Your task to perform on an android device: What is the recent news? Image 0: 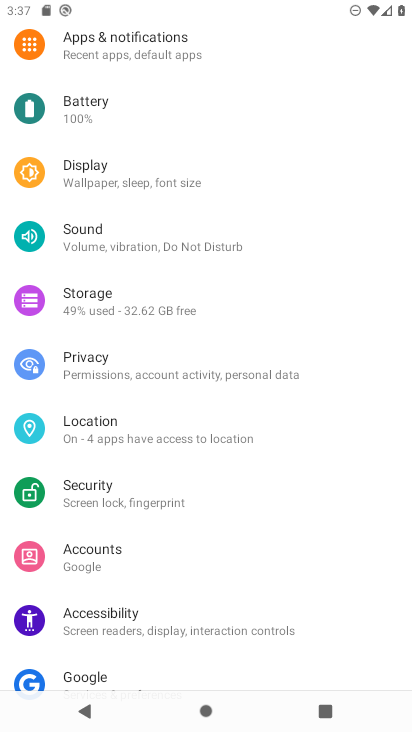
Step 0: press back button
Your task to perform on an android device: What is the recent news? Image 1: 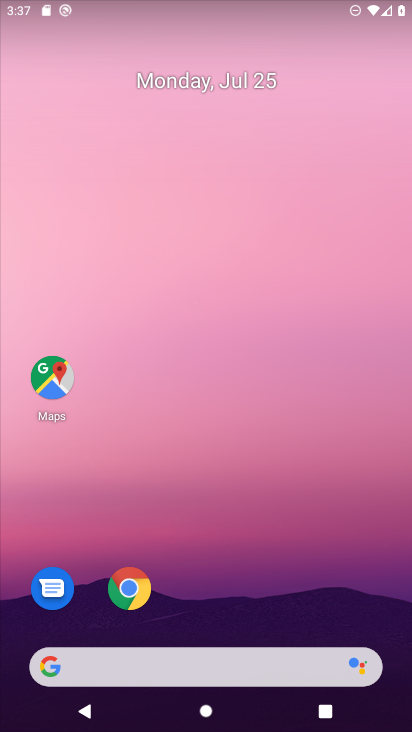
Step 1: drag from (233, 598) to (254, 117)
Your task to perform on an android device: What is the recent news? Image 2: 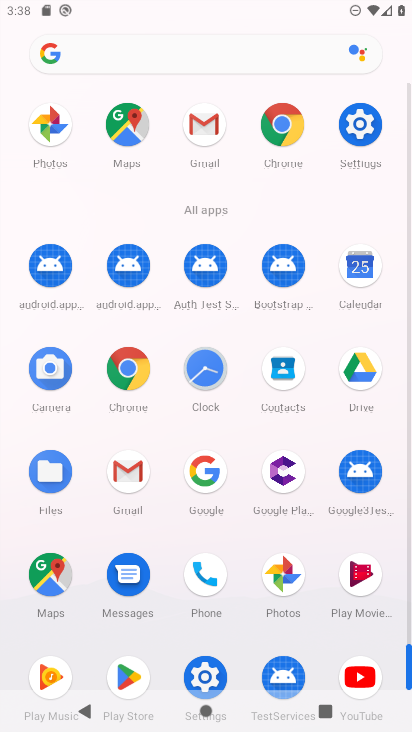
Step 2: click (272, 142)
Your task to perform on an android device: What is the recent news? Image 3: 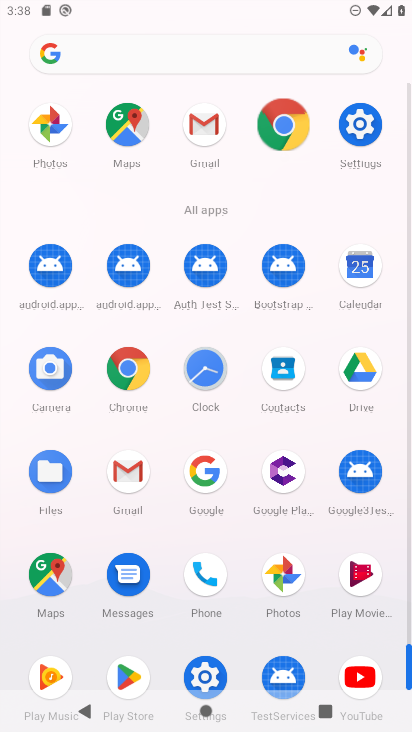
Step 3: click (275, 135)
Your task to perform on an android device: What is the recent news? Image 4: 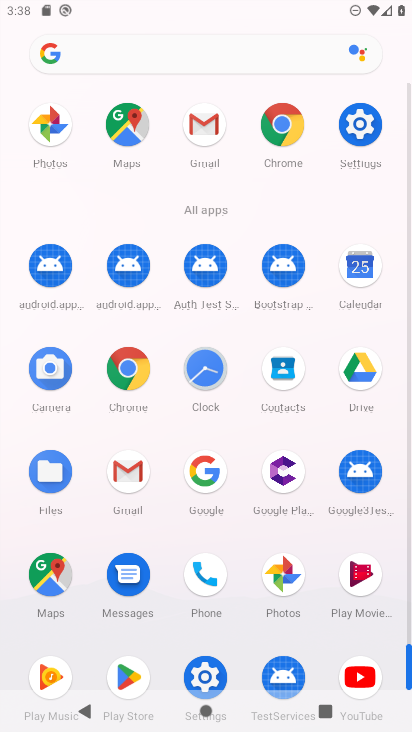
Step 4: click (275, 134)
Your task to perform on an android device: What is the recent news? Image 5: 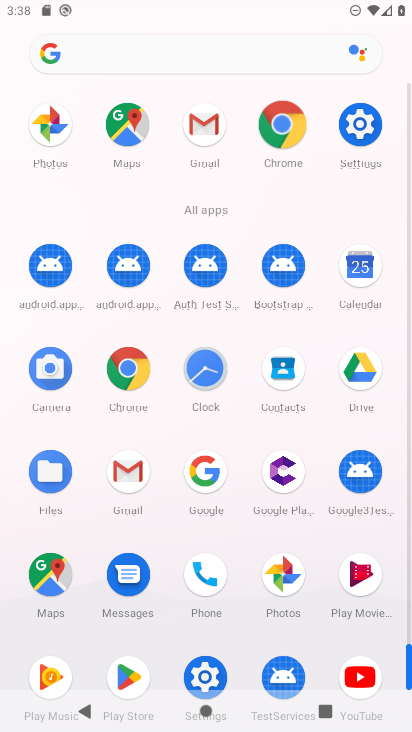
Step 5: click (274, 134)
Your task to perform on an android device: What is the recent news? Image 6: 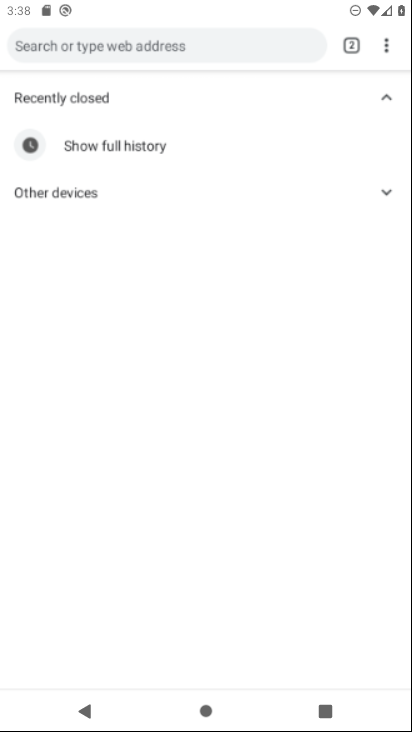
Step 6: click (300, 139)
Your task to perform on an android device: What is the recent news? Image 7: 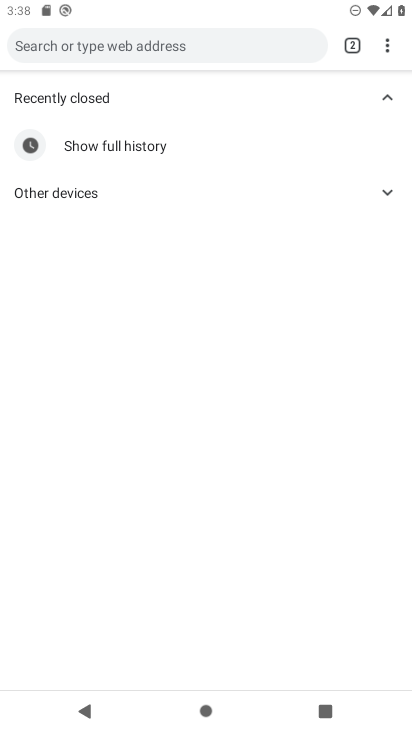
Step 7: task complete